Your task to perform on an android device: Search for sushi restaurants on Maps Image 0: 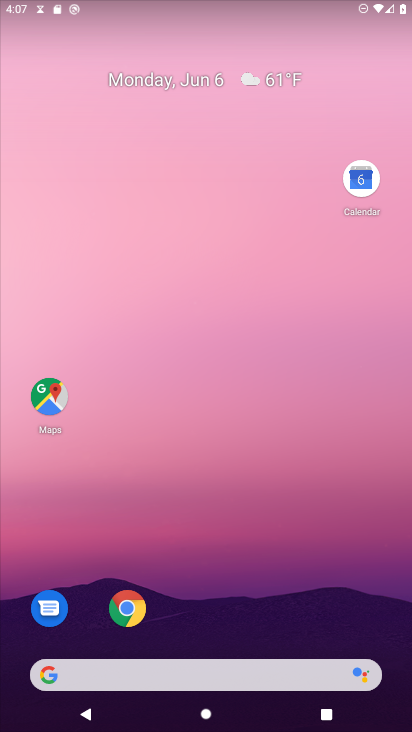
Step 0: click (48, 396)
Your task to perform on an android device: Search for sushi restaurants on Maps Image 1: 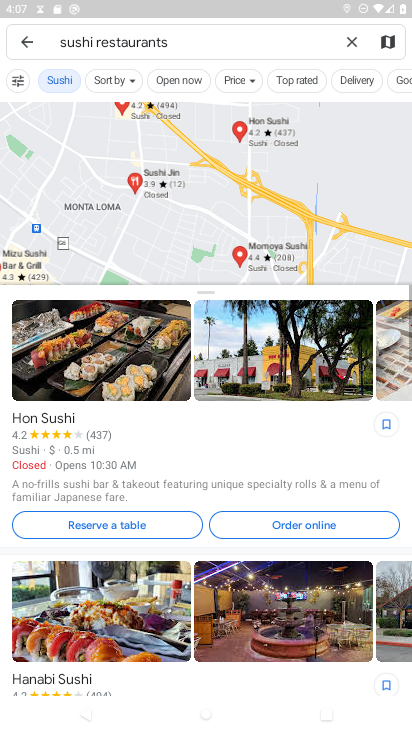
Step 1: task complete